Your task to perform on an android device: turn off location history Image 0: 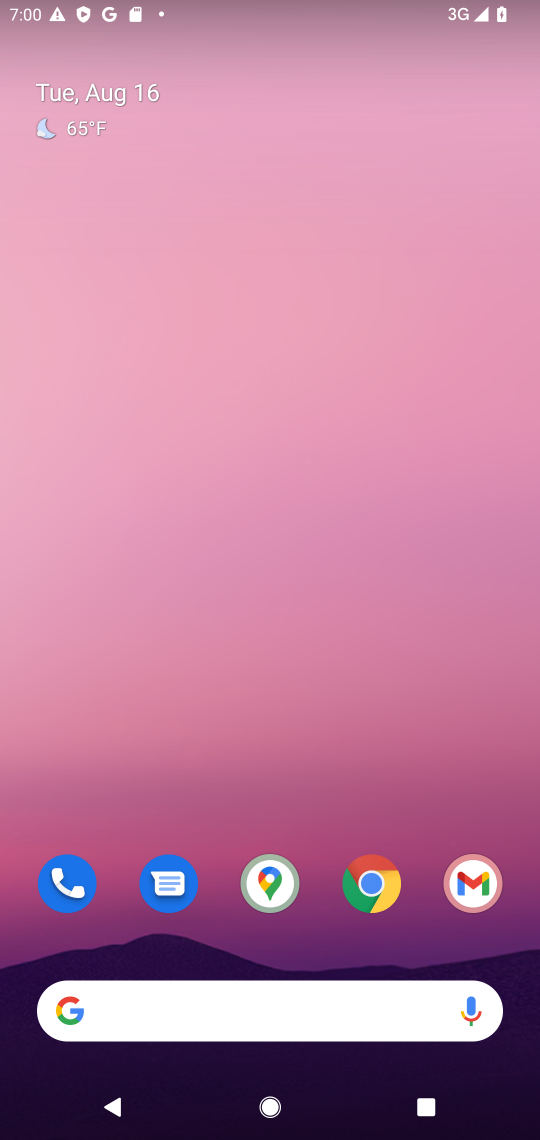
Step 0: drag from (253, 1014) to (249, 150)
Your task to perform on an android device: turn off location history Image 1: 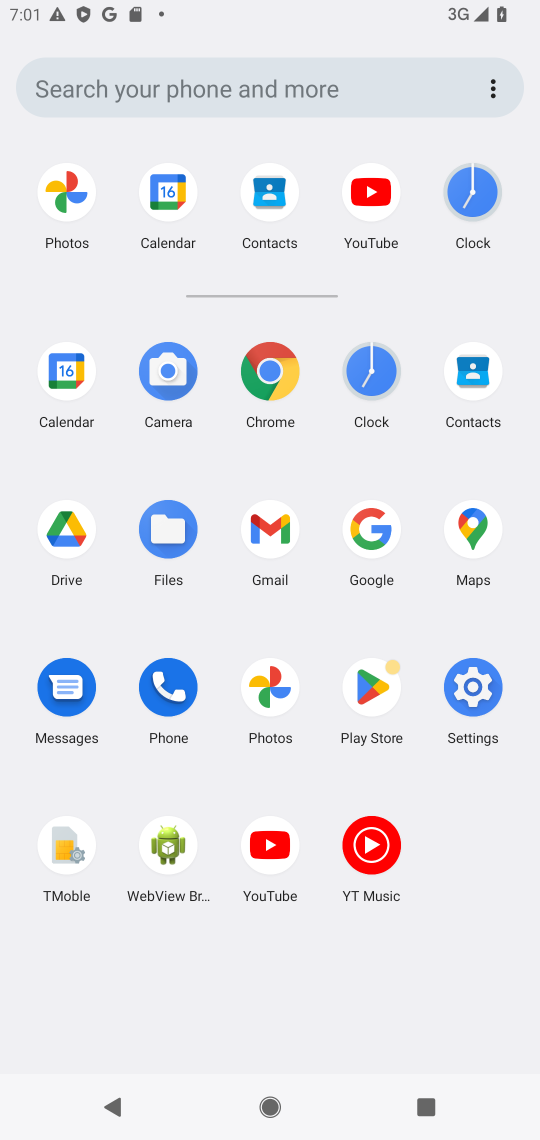
Step 1: click (473, 686)
Your task to perform on an android device: turn off location history Image 2: 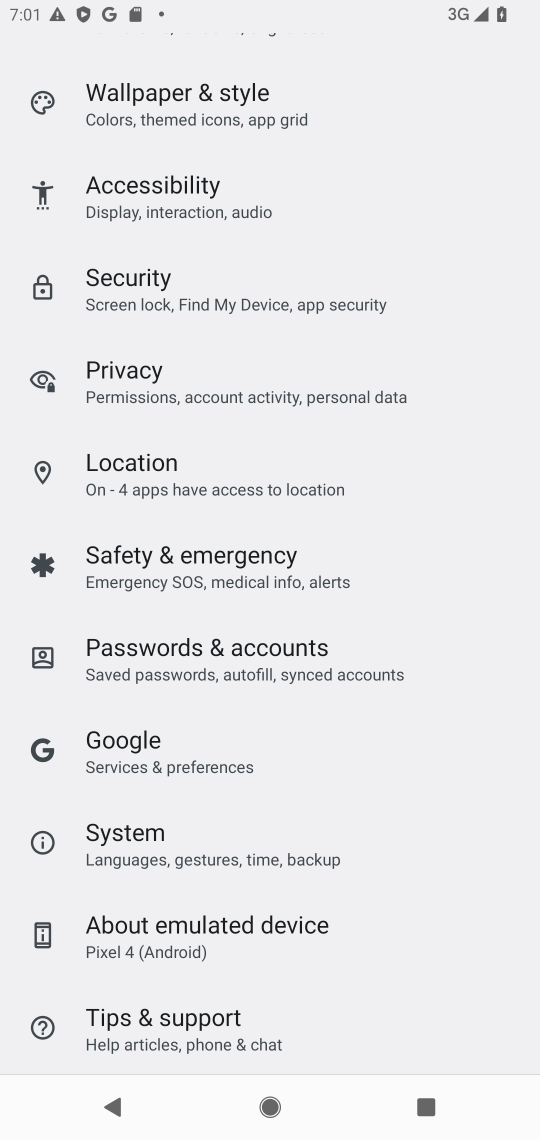
Step 2: click (227, 485)
Your task to perform on an android device: turn off location history Image 3: 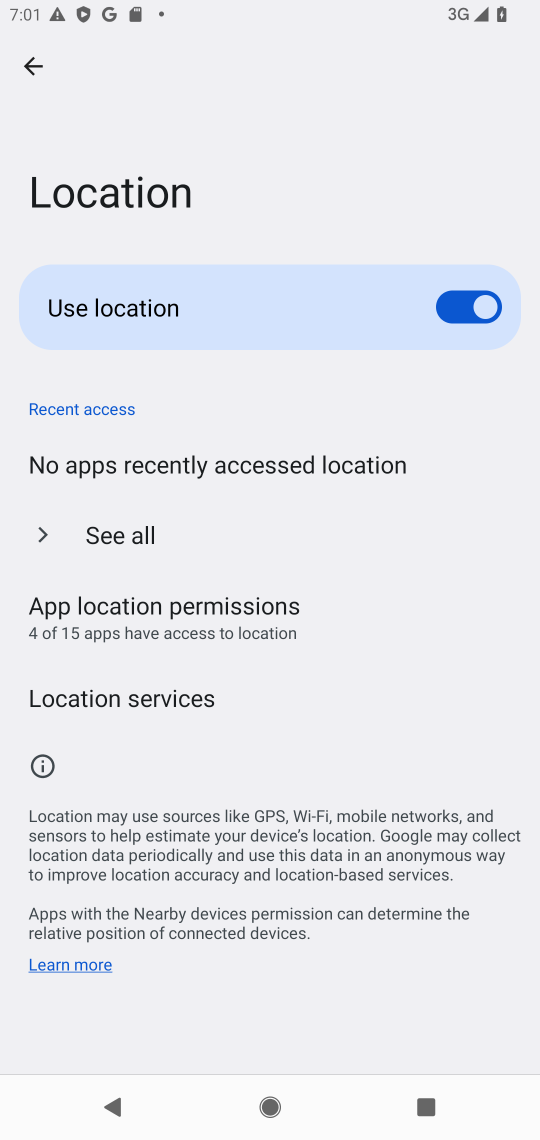
Step 3: click (198, 703)
Your task to perform on an android device: turn off location history Image 4: 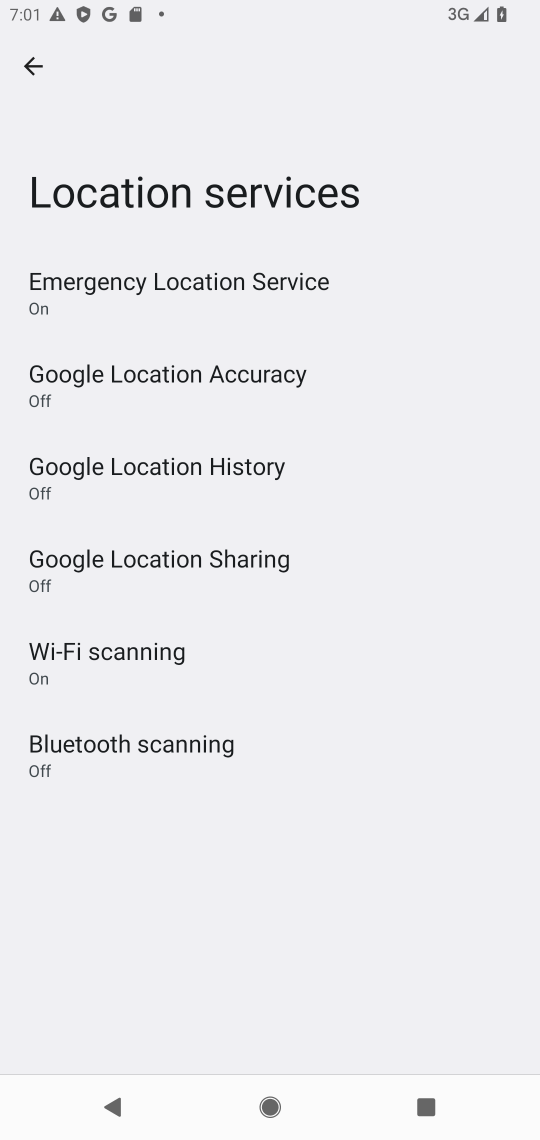
Step 4: task complete